Your task to perform on an android device: Go to display settings Image 0: 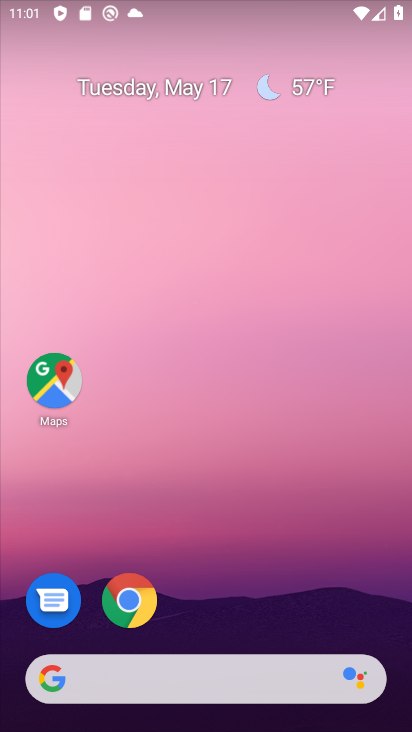
Step 0: drag from (253, 631) to (162, 40)
Your task to perform on an android device: Go to display settings Image 1: 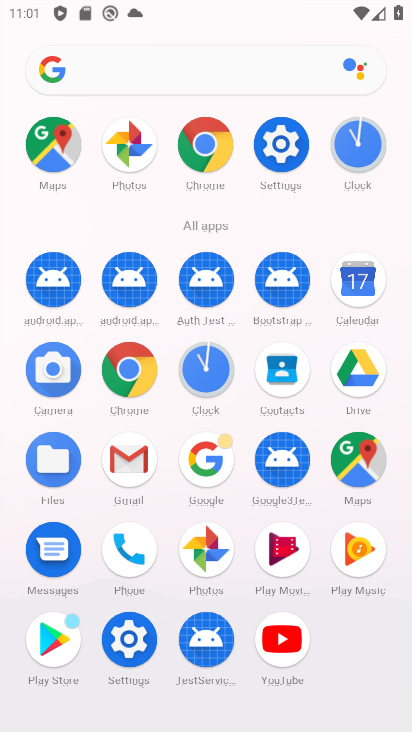
Step 1: drag from (226, 527) to (144, 19)
Your task to perform on an android device: Go to display settings Image 2: 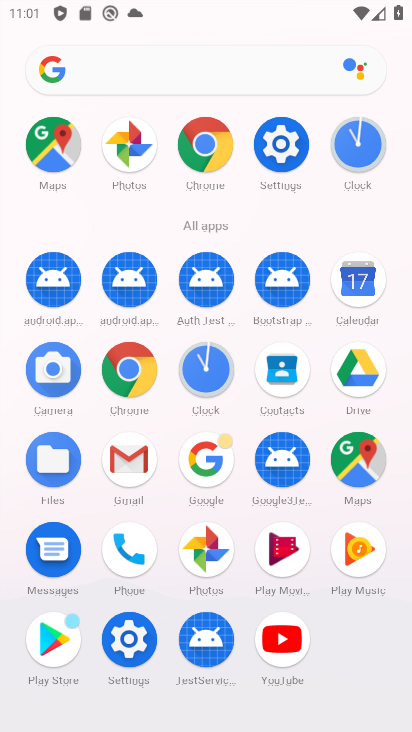
Step 2: drag from (229, 606) to (206, 55)
Your task to perform on an android device: Go to display settings Image 3: 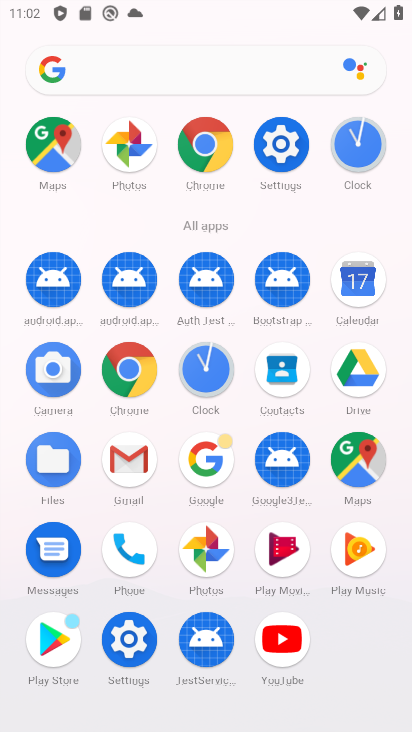
Step 3: click (290, 153)
Your task to perform on an android device: Go to display settings Image 4: 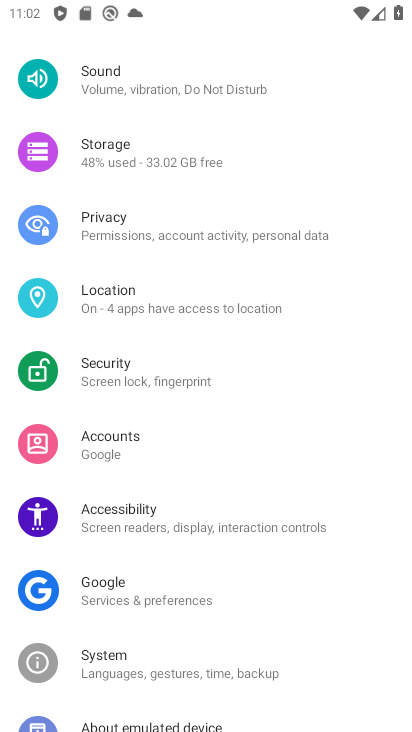
Step 4: click (282, 151)
Your task to perform on an android device: Go to display settings Image 5: 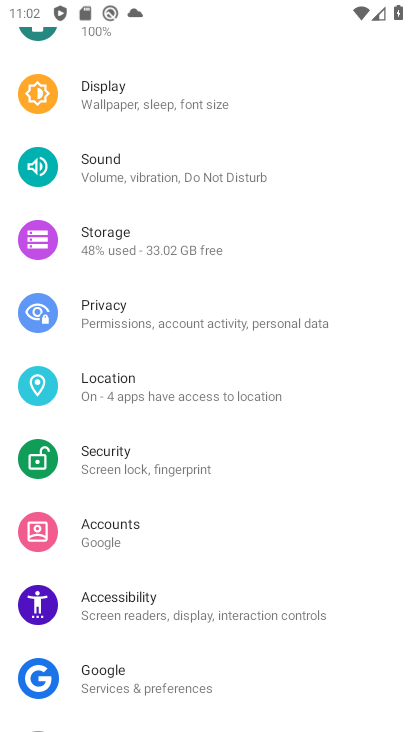
Step 5: click (118, 94)
Your task to perform on an android device: Go to display settings Image 6: 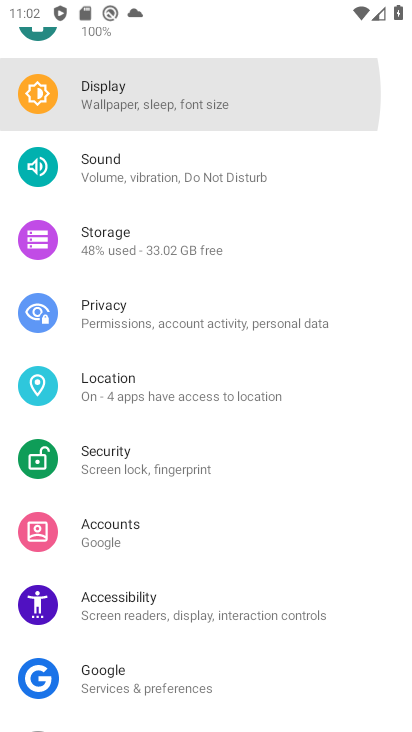
Step 6: click (118, 94)
Your task to perform on an android device: Go to display settings Image 7: 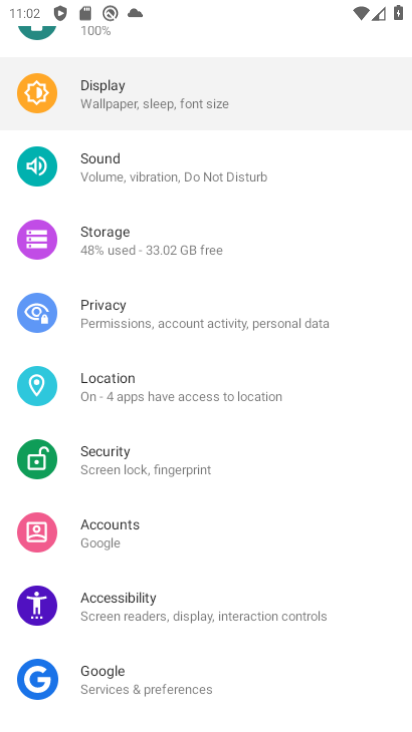
Step 7: click (118, 96)
Your task to perform on an android device: Go to display settings Image 8: 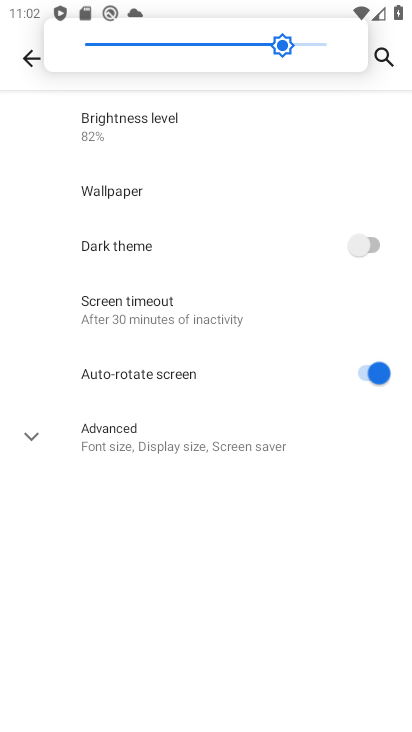
Step 8: task complete